Your task to perform on an android device: add a label to a message in the gmail app Image 0: 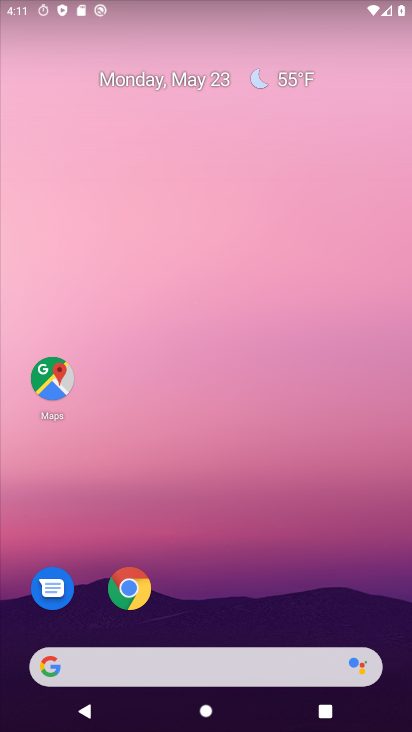
Step 0: press home button
Your task to perform on an android device: add a label to a message in the gmail app Image 1: 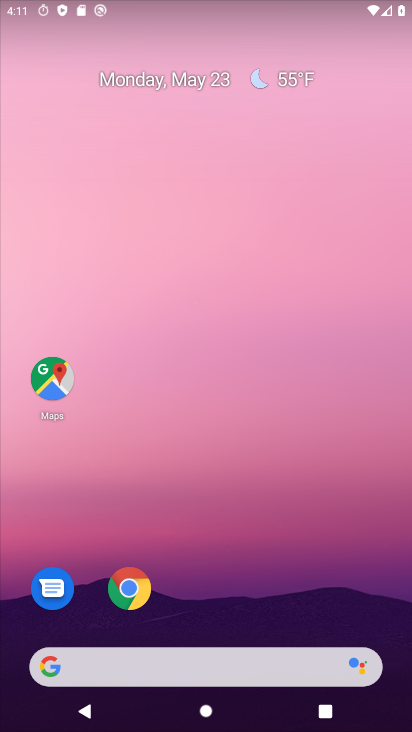
Step 1: drag from (210, 586) to (212, 99)
Your task to perform on an android device: add a label to a message in the gmail app Image 2: 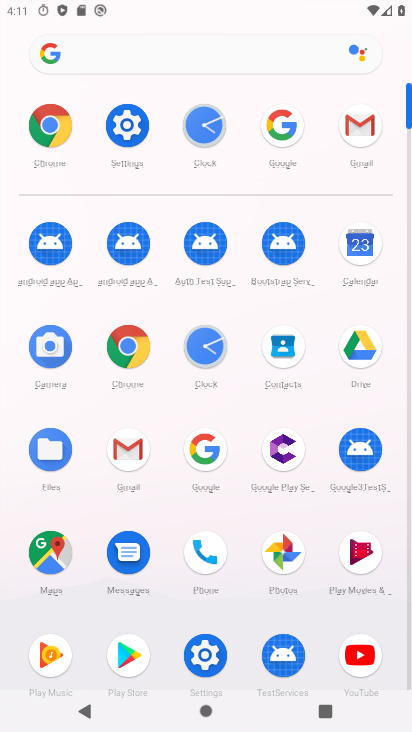
Step 2: click (352, 128)
Your task to perform on an android device: add a label to a message in the gmail app Image 3: 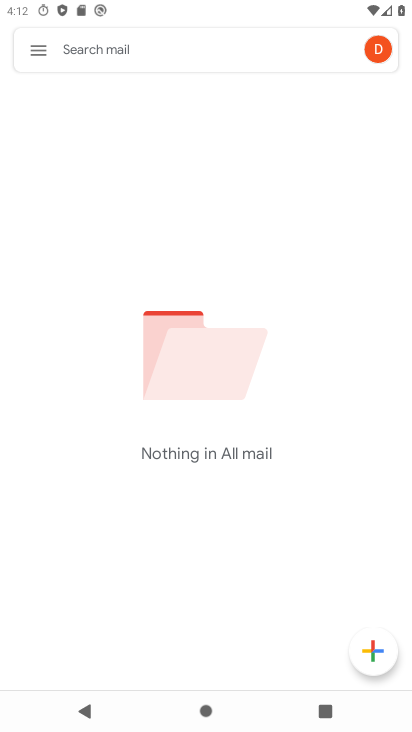
Step 3: task complete